Your task to perform on an android device: toggle pop-ups in chrome Image 0: 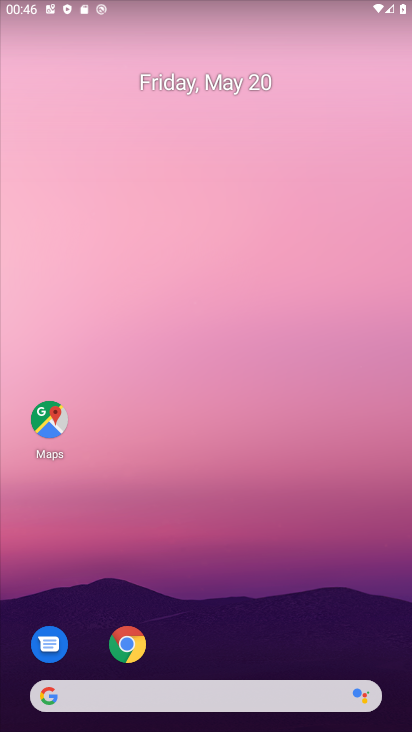
Step 0: click (119, 651)
Your task to perform on an android device: toggle pop-ups in chrome Image 1: 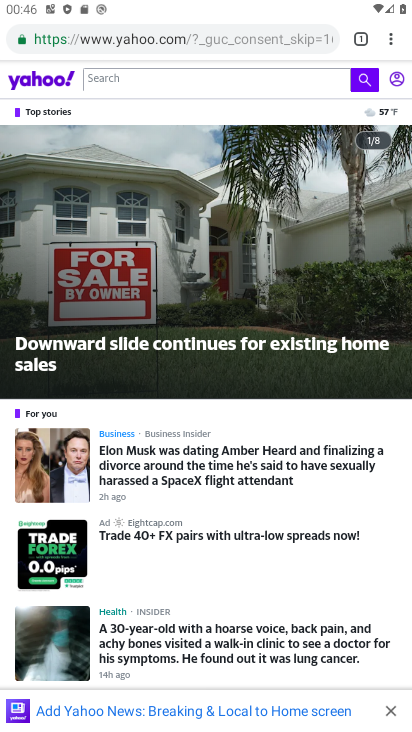
Step 1: click (388, 40)
Your task to perform on an android device: toggle pop-ups in chrome Image 2: 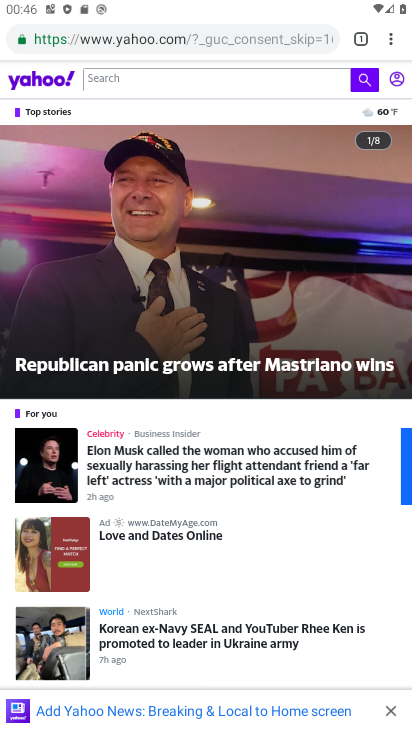
Step 2: click (392, 42)
Your task to perform on an android device: toggle pop-ups in chrome Image 3: 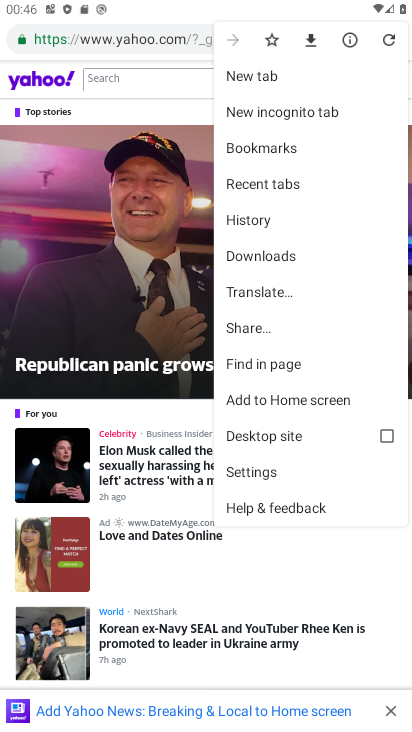
Step 3: click (247, 473)
Your task to perform on an android device: toggle pop-ups in chrome Image 4: 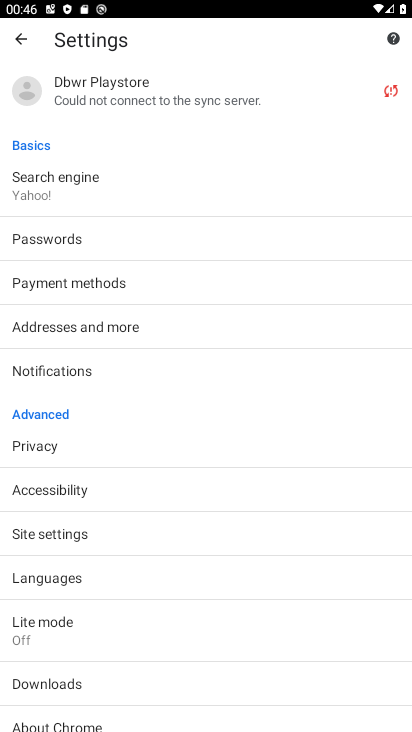
Step 4: click (77, 527)
Your task to perform on an android device: toggle pop-ups in chrome Image 5: 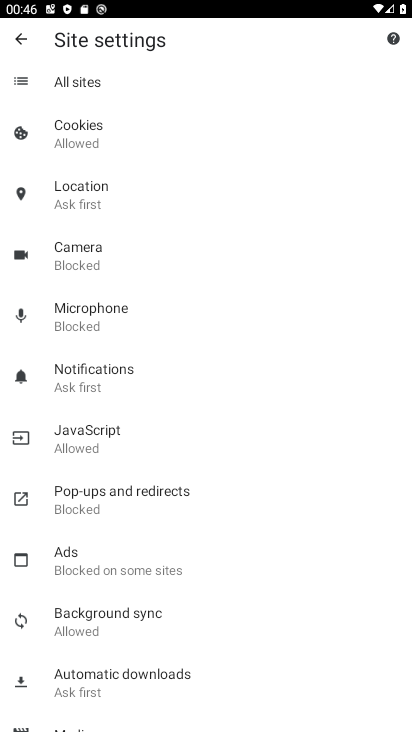
Step 5: click (97, 498)
Your task to perform on an android device: toggle pop-ups in chrome Image 6: 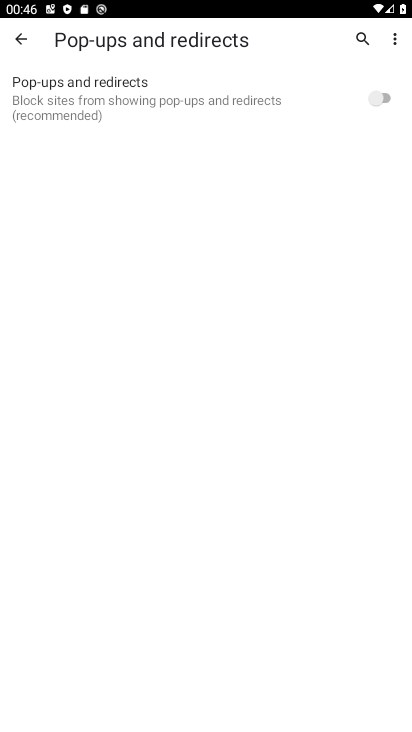
Step 6: click (367, 103)
Your task to perform on an android device: toggle pop-ups in chrome Image 7: 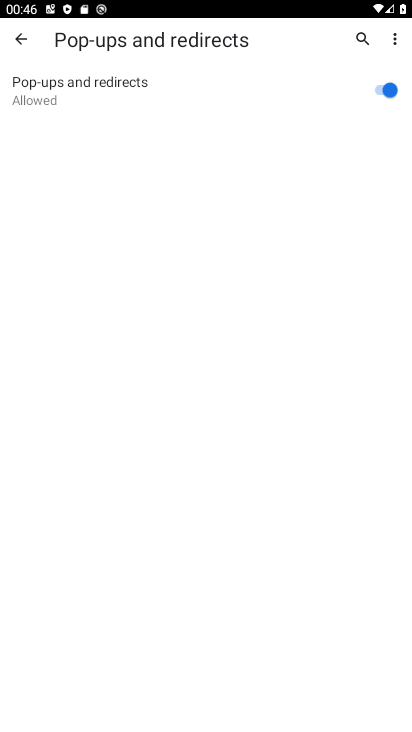
Step 7: task complete